Your task to perform on an android device: Open Wikipedia Image 0: 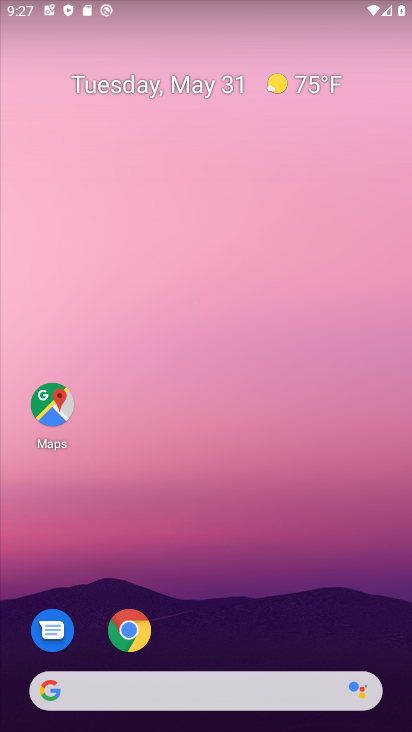
Step 0: drag from (229, 600) to (265, 272)
Your task to perform on an android device: Open Wikipedia Image 1: 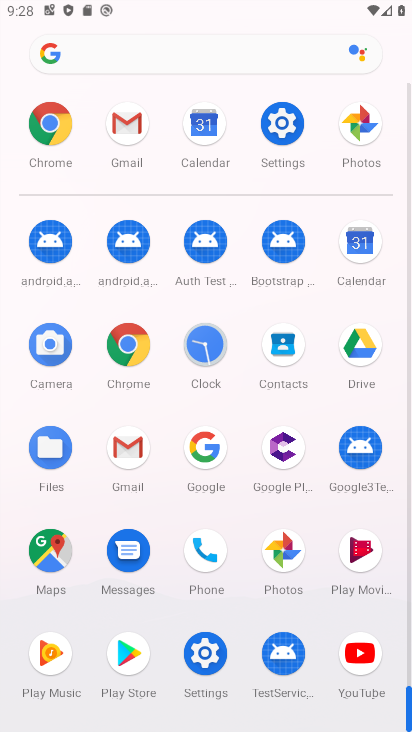
Step 1: click (134, 360)
Your task to perform on an android device: Open Wikipedia Image 2: 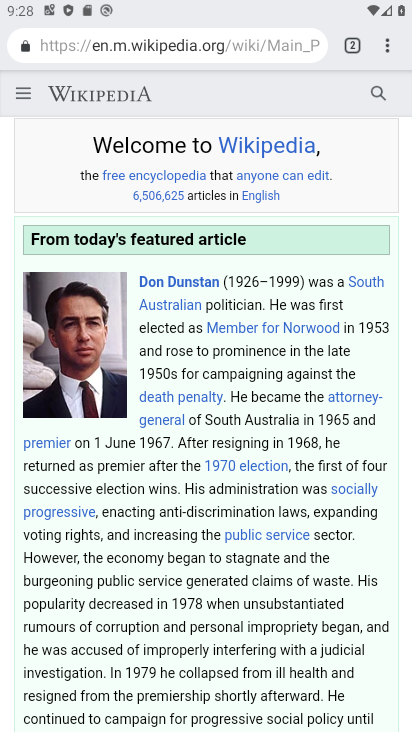
Step 2: task complete